Your task to perform on an android device: turn smart compose on in the gmail app Image 0: 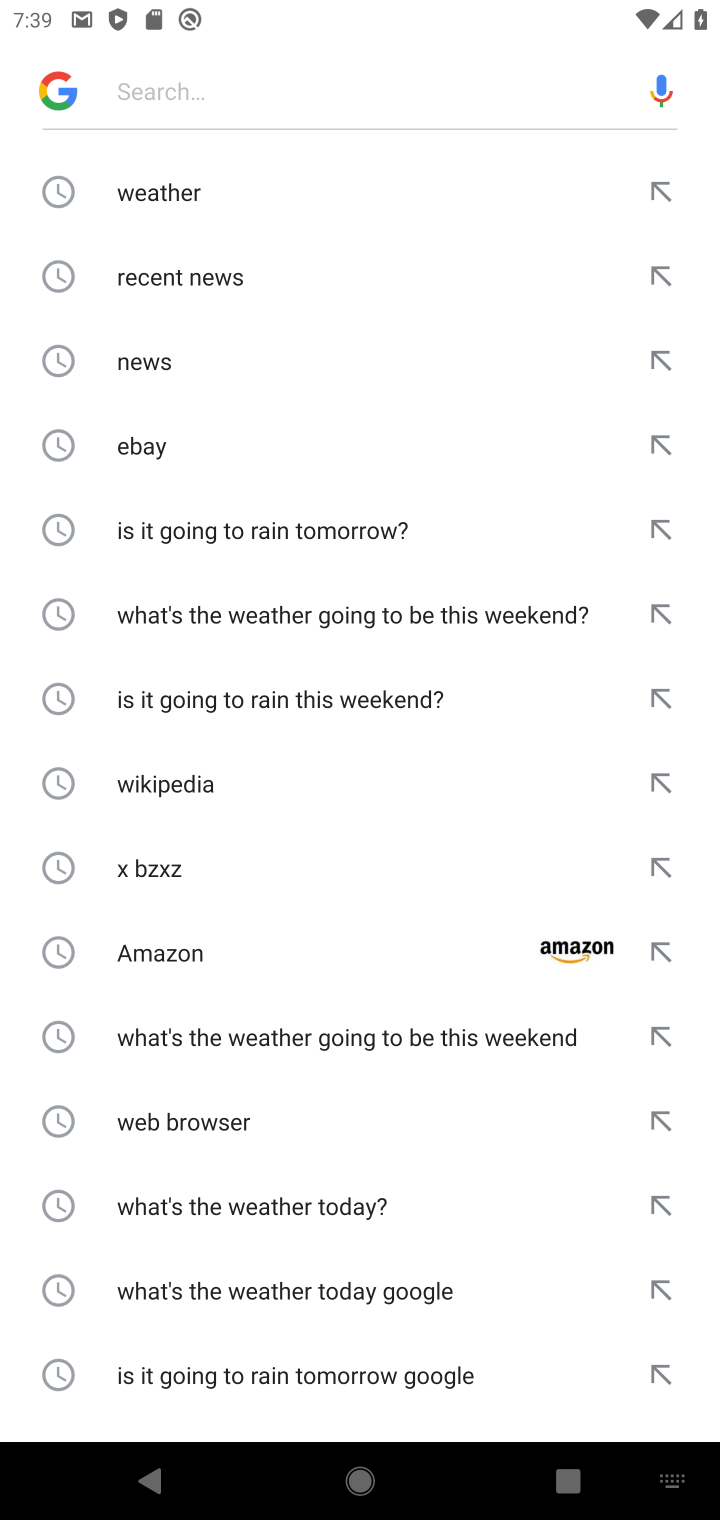
Step 0: press home button
Your task to perform on an android device: turn smart compose on in the gmail app Image 1: 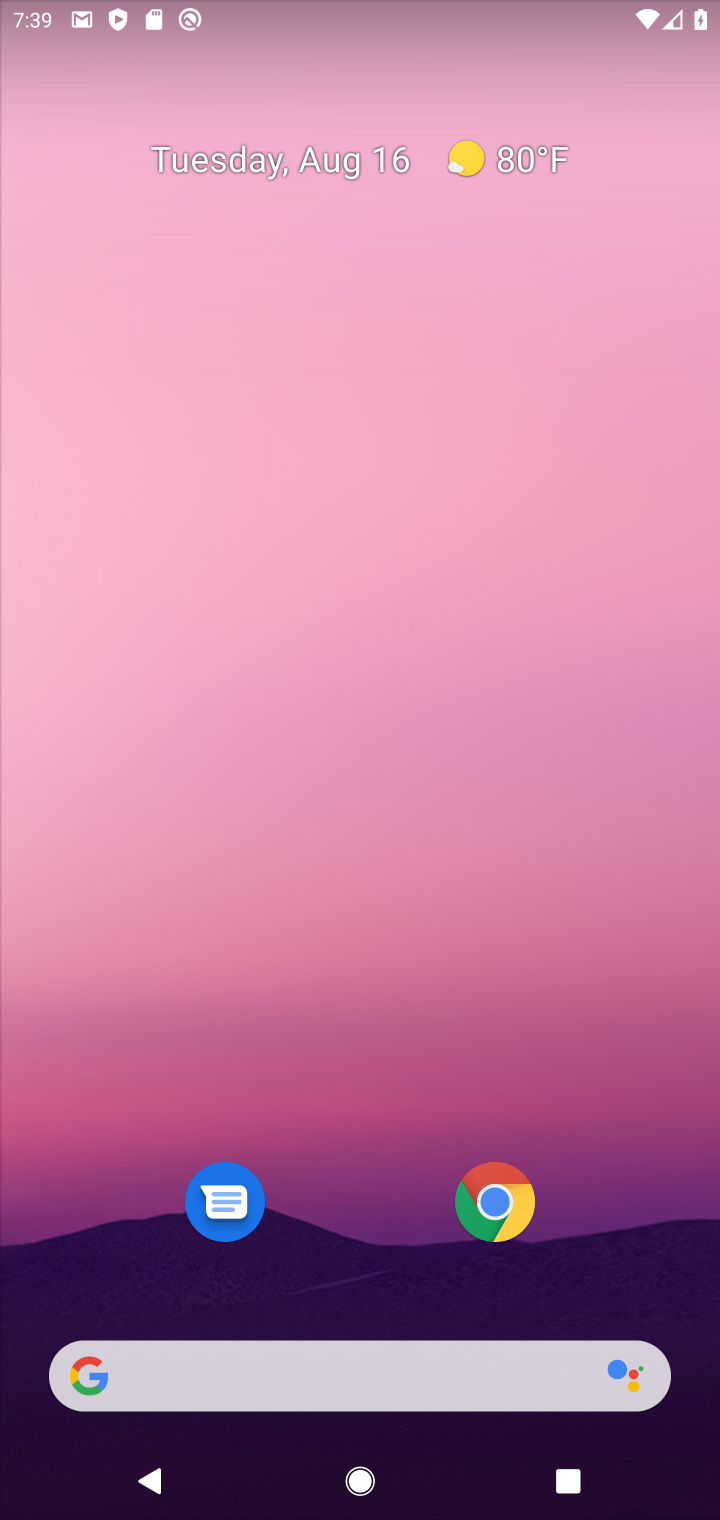
Step 1: drag from (358, 1279) to (284, 201)
Your task to perform on an android device: turn smart compose on in the gmail app Image 2: 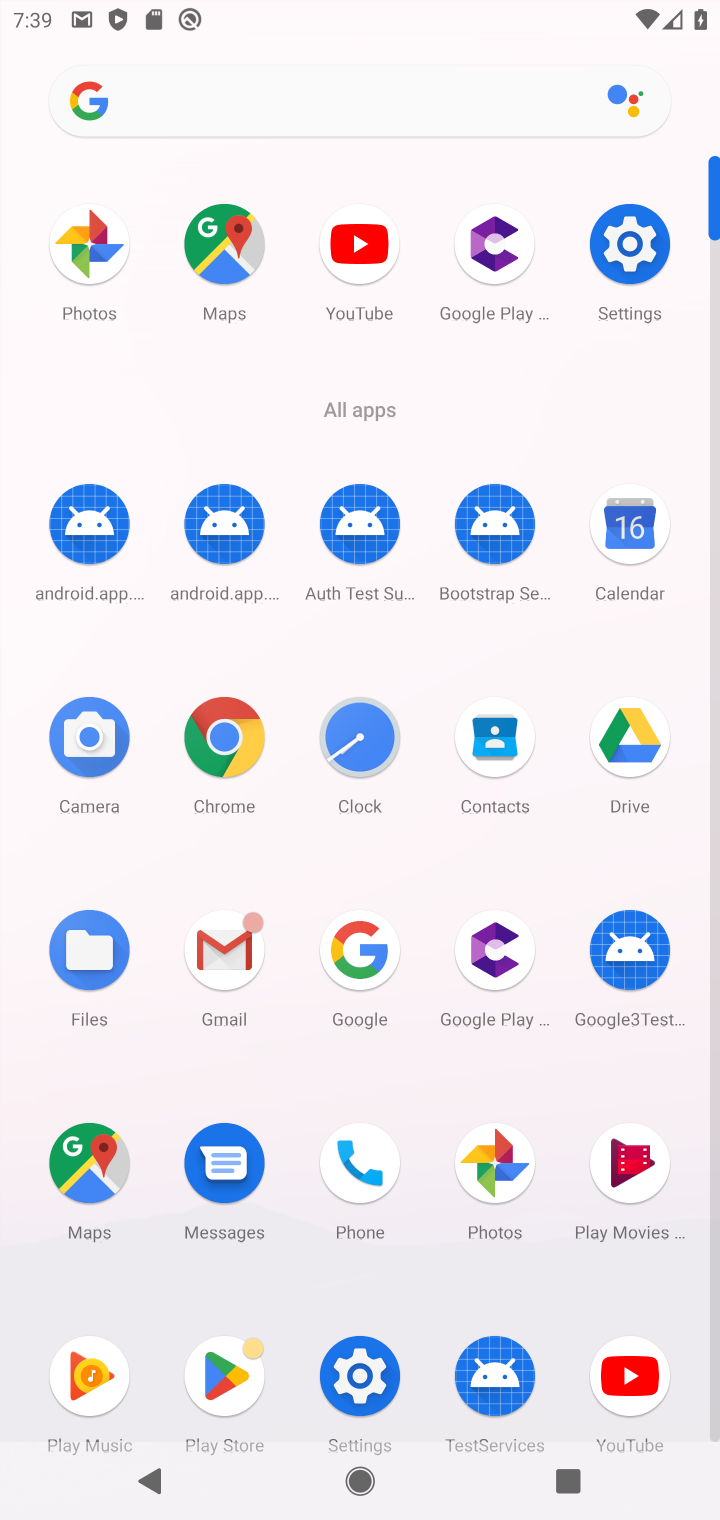
Step 2: click (642, 301)
Your task to perform on an android device: turn smart compose on in the gmail app Image 3: 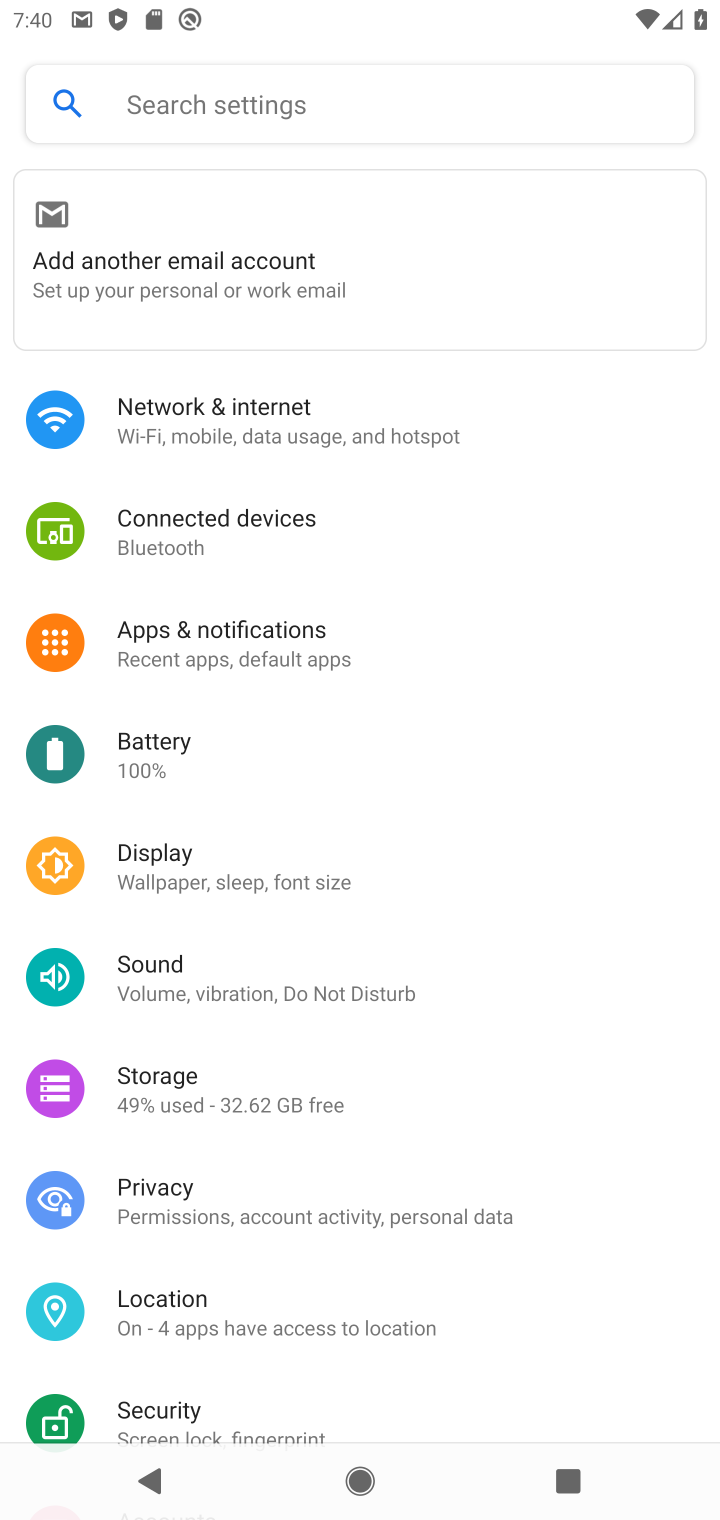
Step 3: drag from (225, 1373) to (314, 591)
Your task to perform on an android device: turn smart compose on in the gmail app Image 4: 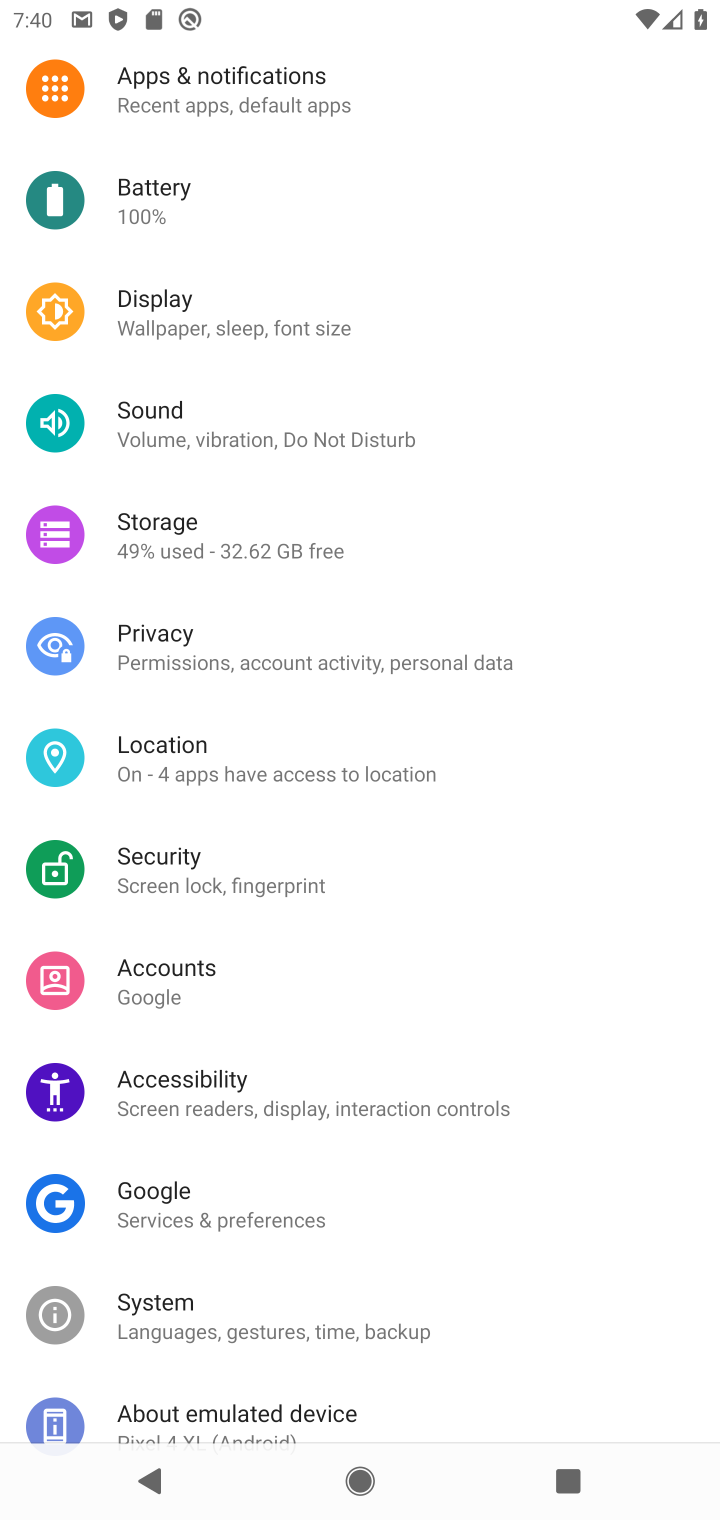
Step 4: press home button
Your task to perform on an android device: turn smart compose on in the gmail app Image 5: 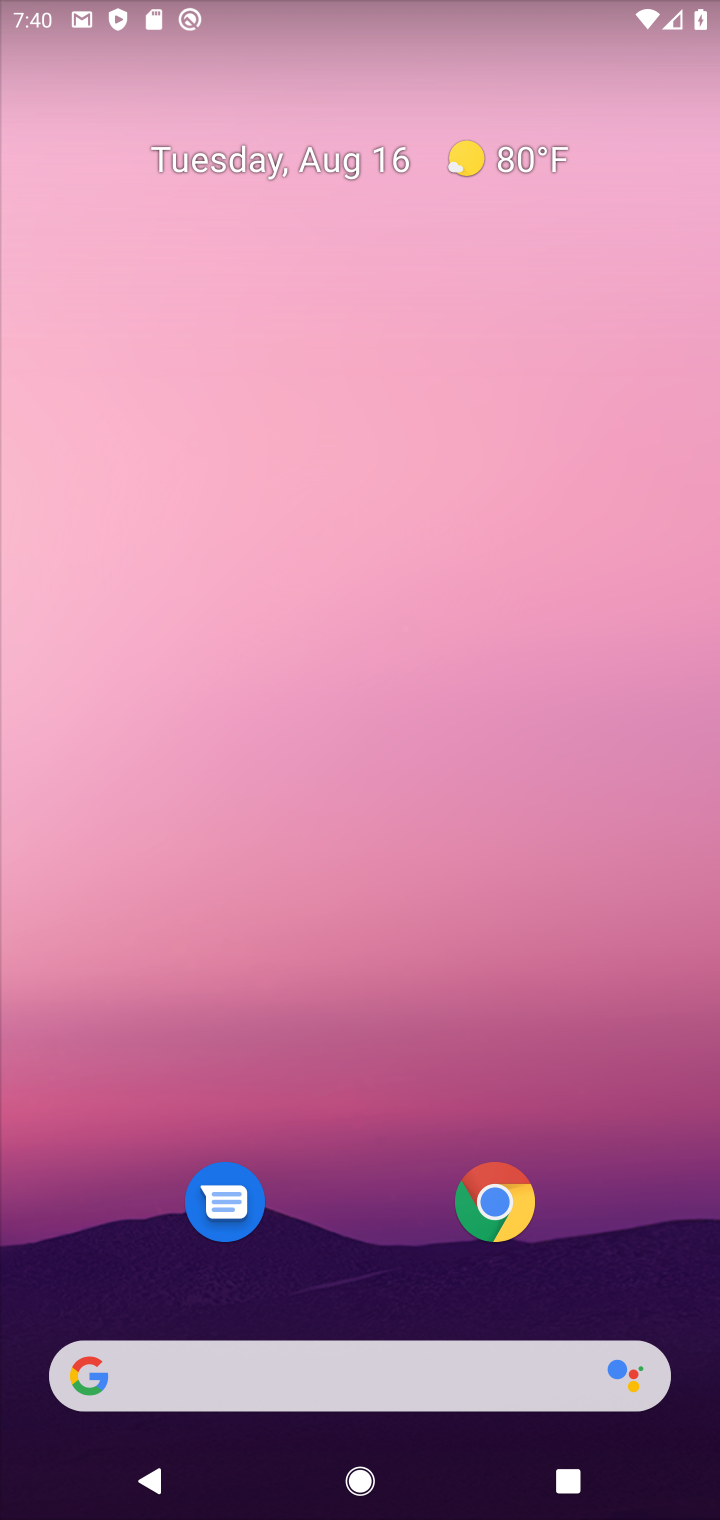
Step 5: drag from (379, 1294) to (378, 172)
Your task to perform on an android device: turn smart compose on in the gmail app Image 6: 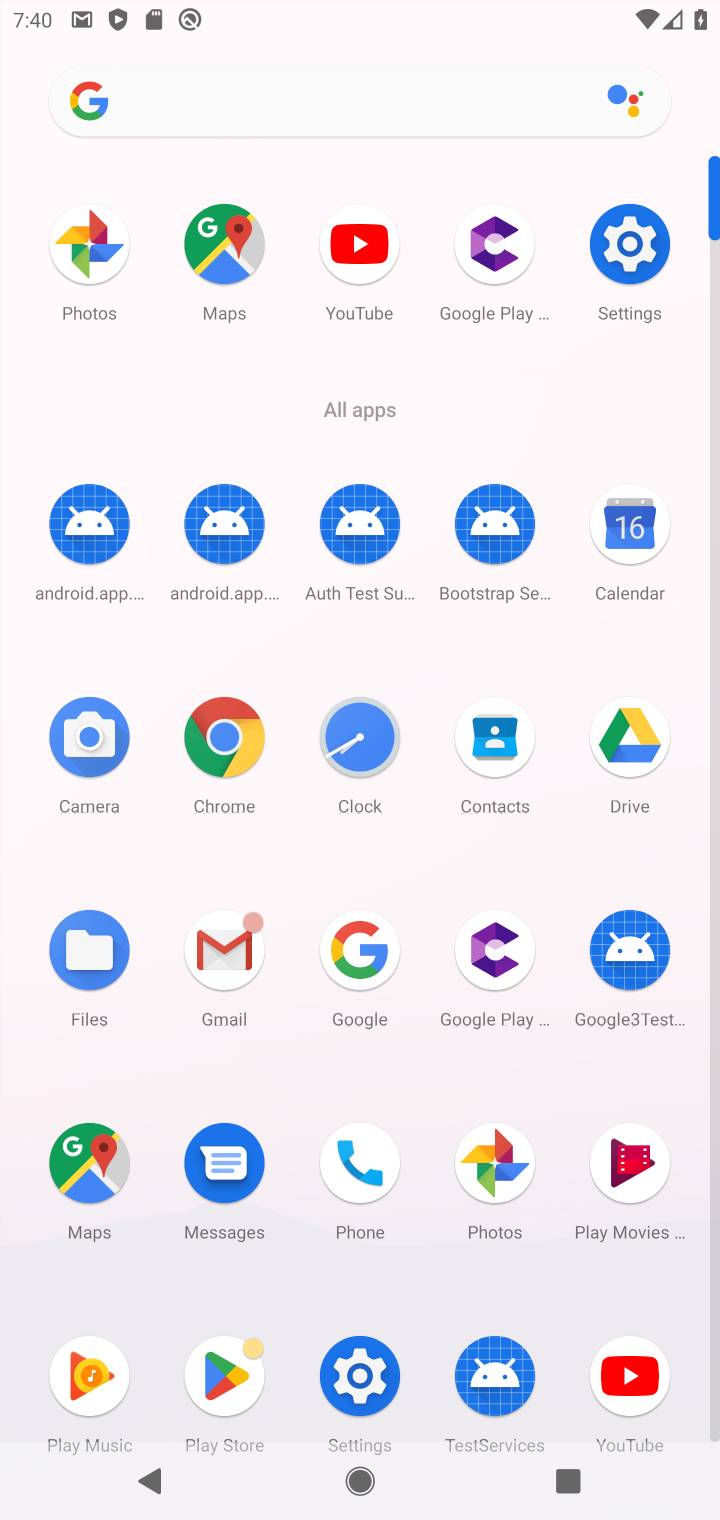
Step 6: click (241, 930)
Your task to perform on an android device: turn smart compose on in the gmail app Image 7: 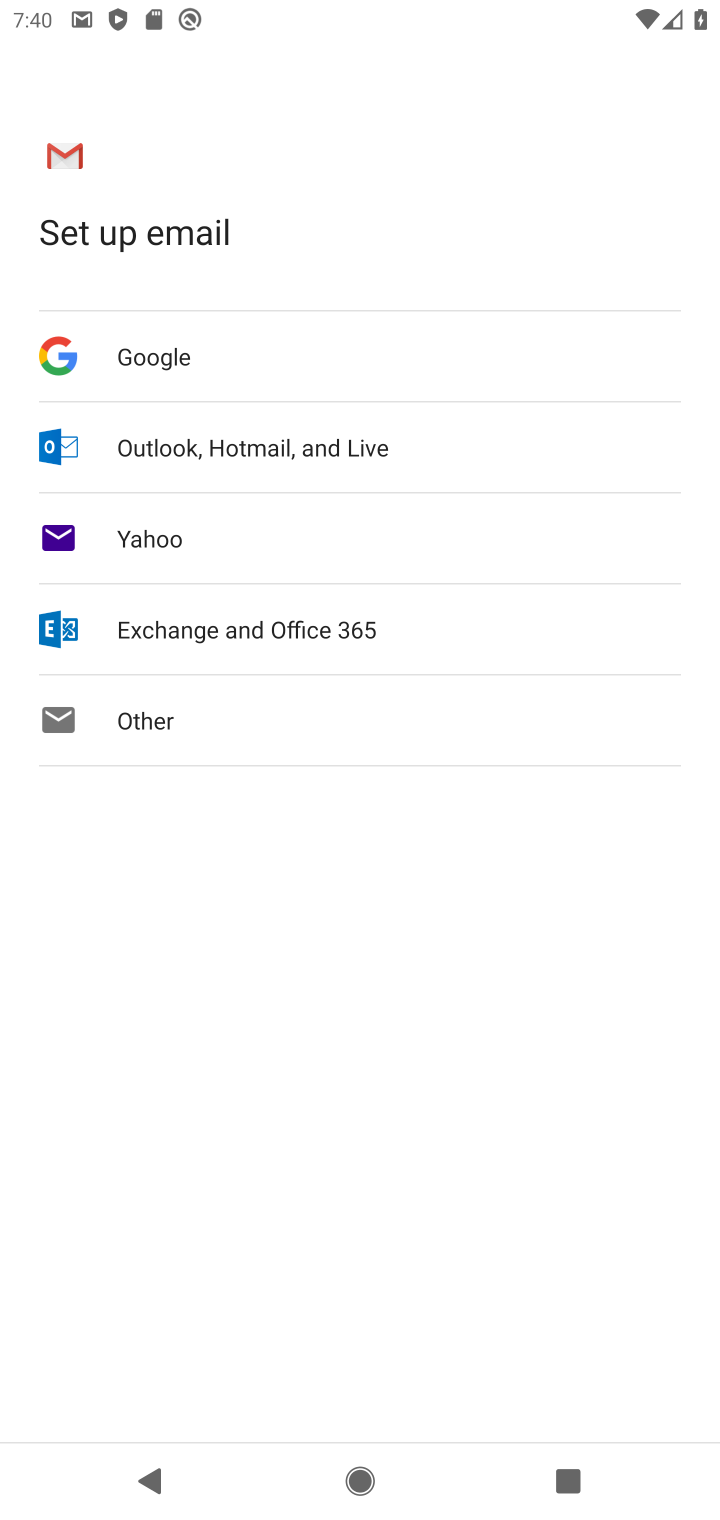
Step 7: click (199, 336)
Your task to perform on an android device: turn smart compose on in the gmail app Image 8: 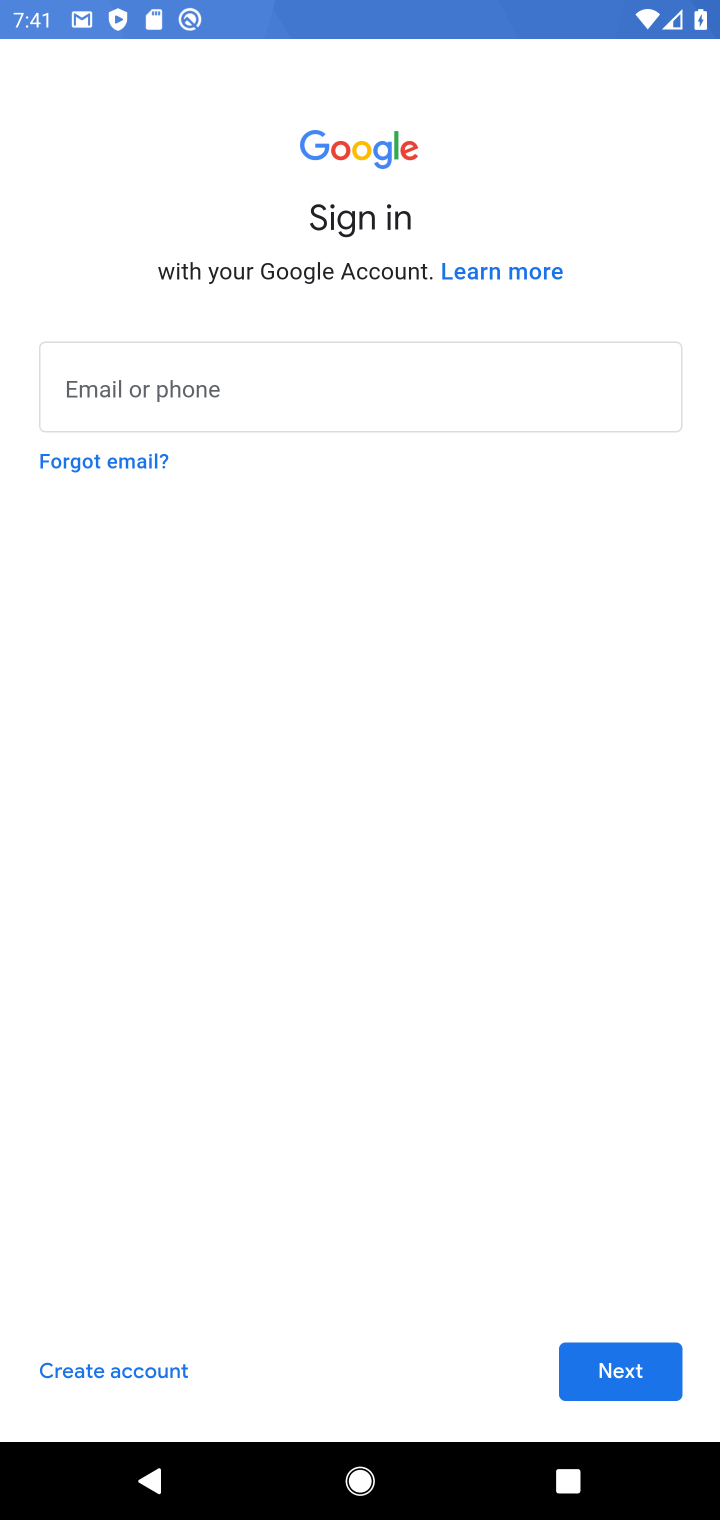
Step 8: task complete